Your task to perform on an android device: toggle airplane mode Image 0: 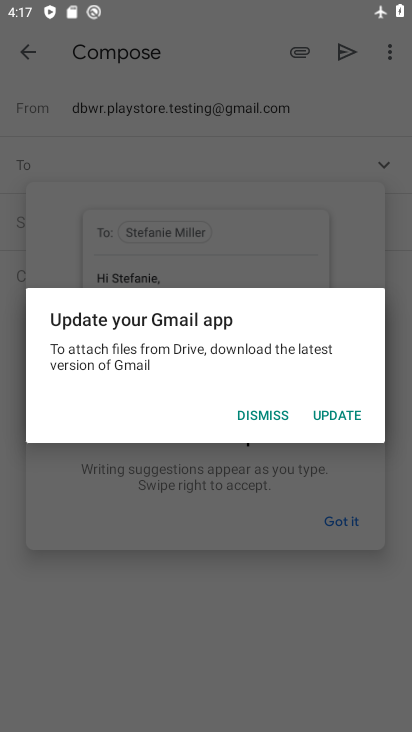
Step 0: press home button
Your task to perform on an android device: toggle airplane mode Image 1: 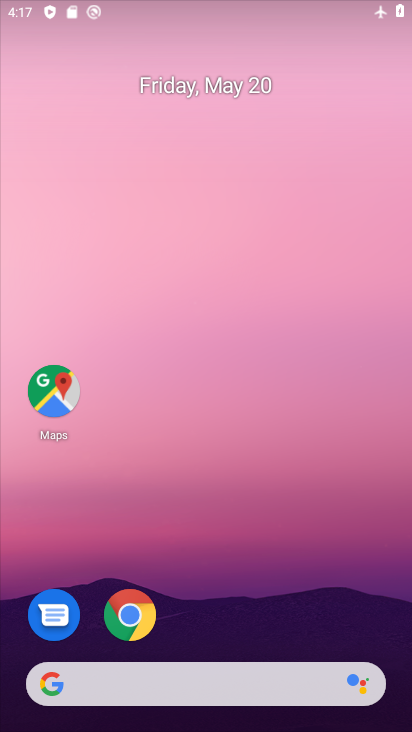
Step 1: drag from (243, 634) to (279, 196)
Your task to perform on an android device: toggle airplane mode Image 2: 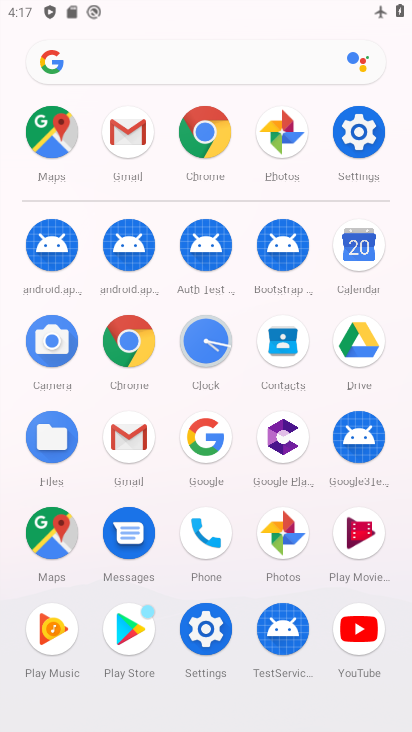
Step 2: click (360, 154)
Your task to perform on an android device: toggle airplane mode Image 3: 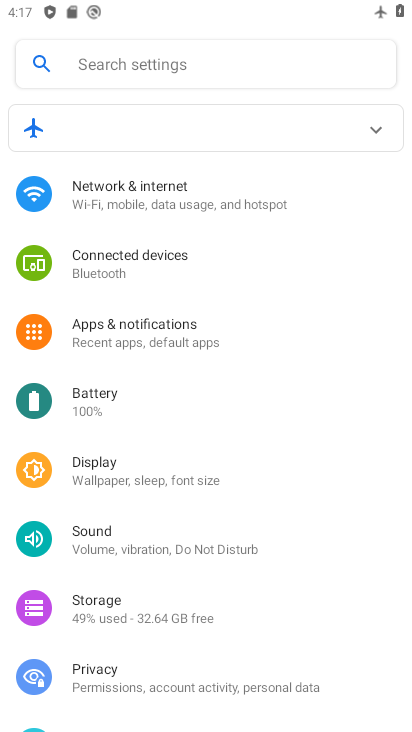
Step 3: click (239, 208)
Your task to perform on an android device: toggle airplane mode Image 4: 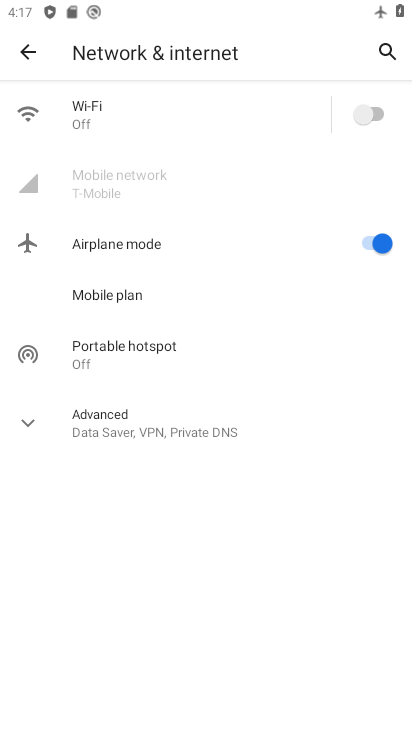
Step 4: click (361, 249)
Your task to perform on an android device: toggle airplane mode Image 5: 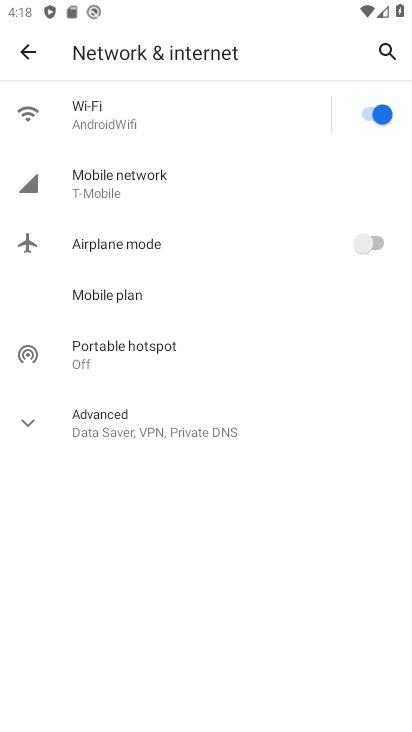
Step 5: task complete